Your task to perform on an android device: open chrome and create a bookmark for the current page Image 0: 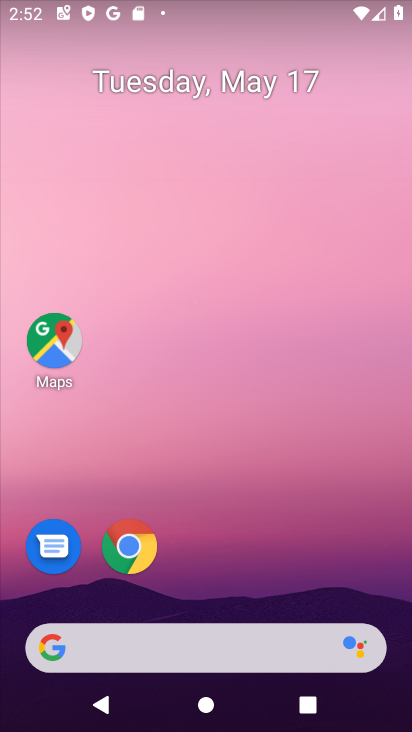
Step 0: click (136, 542)
Your task to perform on an android device: open chrome and create a bookmark for the current page Image 1: 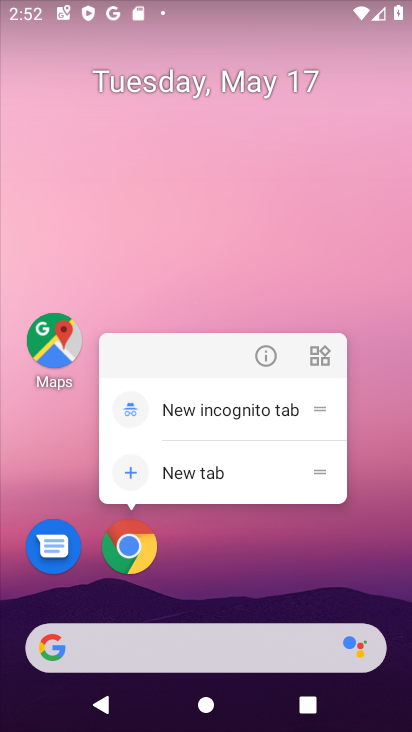
Step 1: click (138, 536)
Your task to perform on an android device: open chrome and create a bookmark for the current page Image 2: 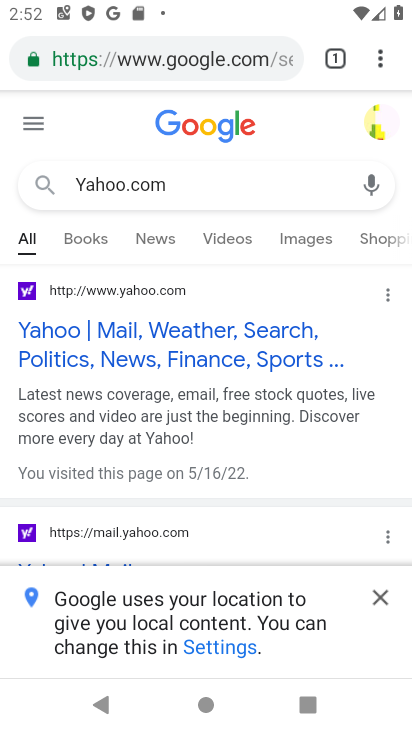
Step 2: click (379, 64)
Your task to perform on an android device: open chrome and create a bookmark for the current page Image 3: 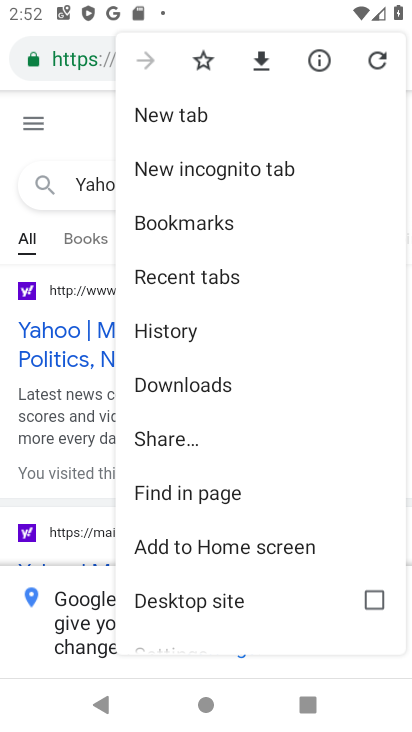
Step 3: click (197, 59)
Your task to perform on an android device: open chrome and create a bookmark for the current page Image 4: 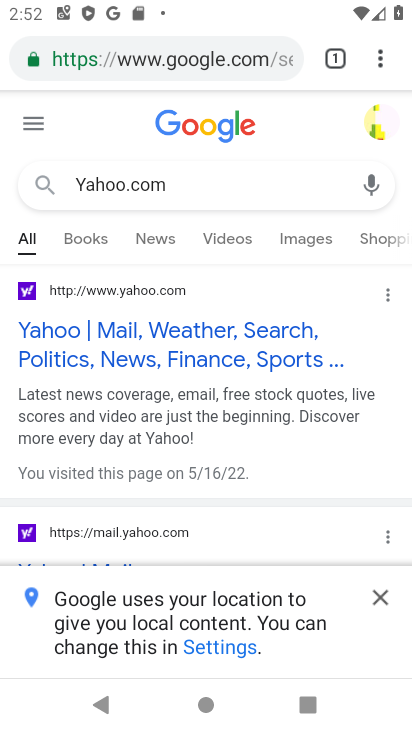
Step 4: task complete